Your task to perform on an android device: Open privacy settings Image 0: 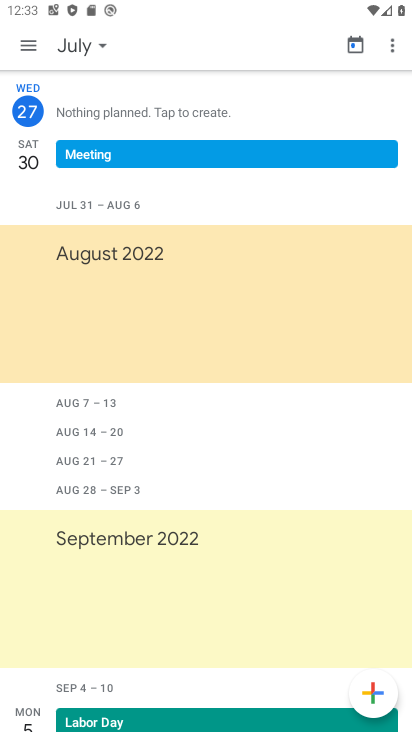
Step 0: press home button
Your task to perform on an android device: Open privacy settings Image 1: 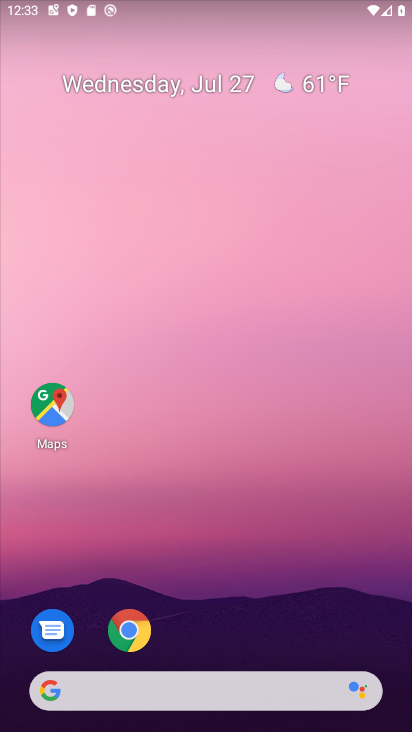
Step 1: drag from (189, 689) to (196, 340)
Your task to perform on an android device: Open privacy settings Image 2: 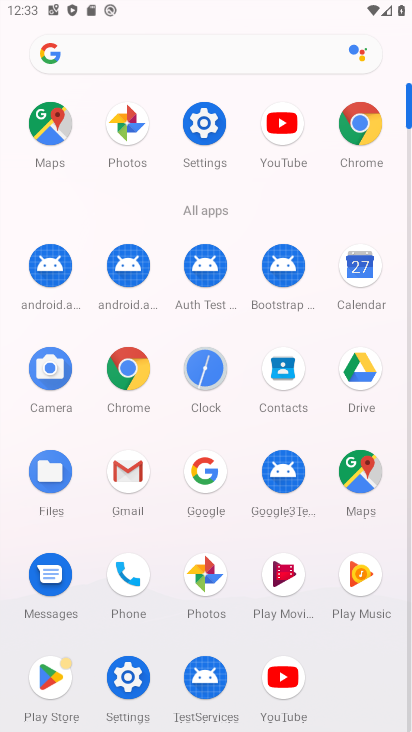
Step 2: click (196, 124)
Your task to perform on an android device: Open privacy settings Image 3: 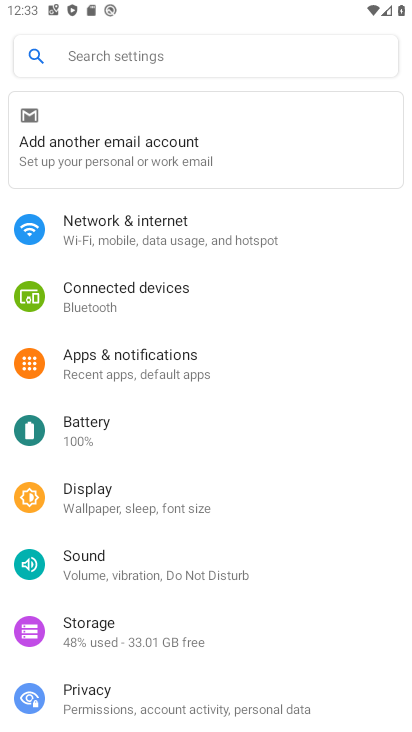
Step 3: click (109, 704)
Your task to perform on an android device: Open privacy settings Image 4: 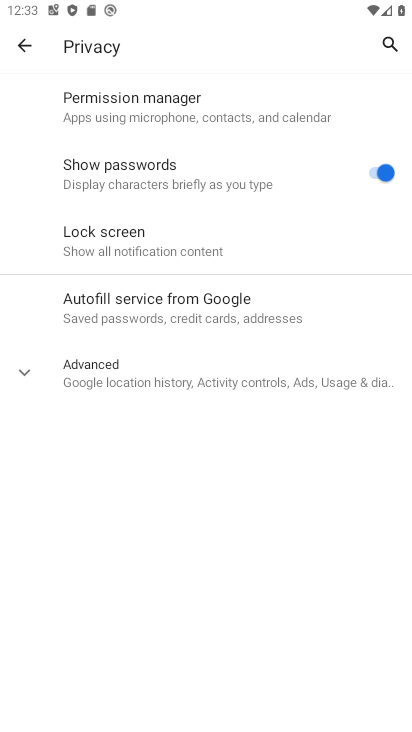
Step 4: click (70, 371)
Your task to perform on an android device: Open privacy settings Image 5: 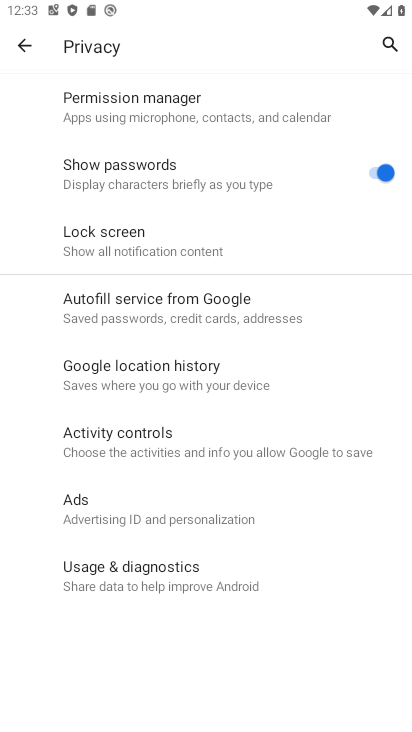
Step 5: task complete